Your task to perform on an android device: allow notifications from all sites in the chrome app Image 0: 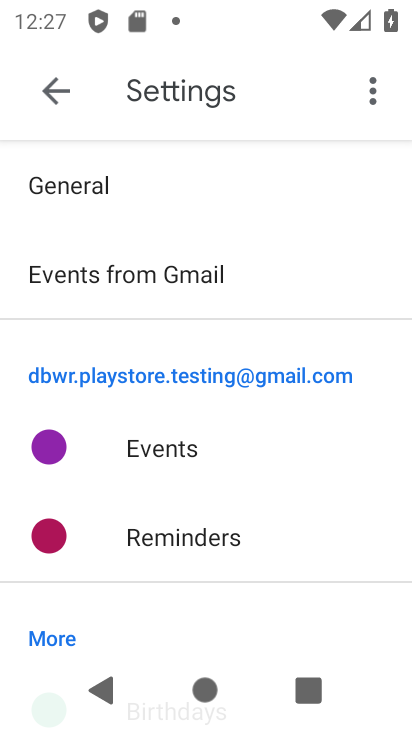
Step 0: press home button
Your task to perform on an android device: allow notifications from all sites in the chrome app Image 1: 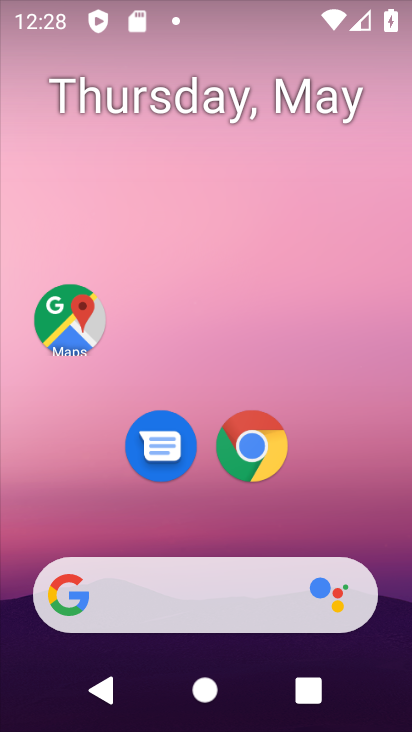
Step 1: drag from (347, 503) to (348, 77)
Your task to perform on an android device: allow notifications from all sites in the chrome app Image 2: 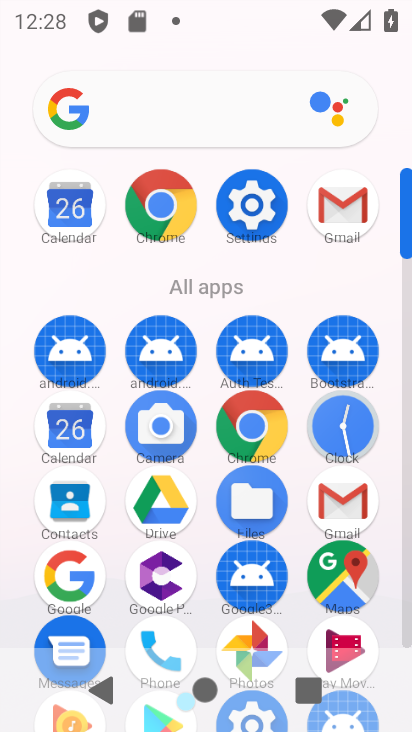
Step 2: click (260, 433)
Your task to perform on an android device: allow notifications from all sites in the chrome app Image 3: 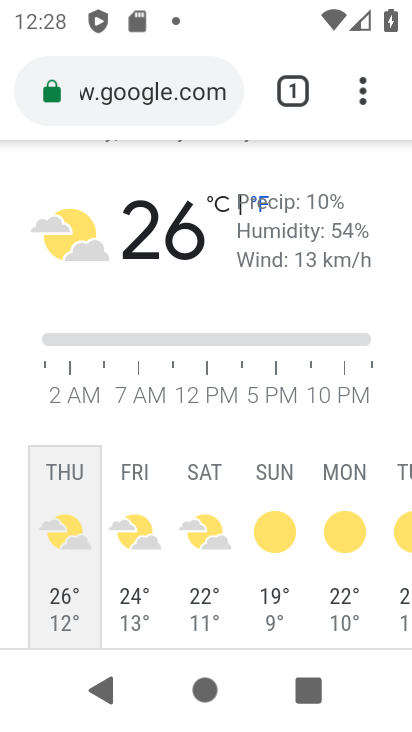
Step 3: drag from (356, 105) to (226, 479)
Your task to perform on an android device: allow notifications from all sites in the chrome app Image 4: 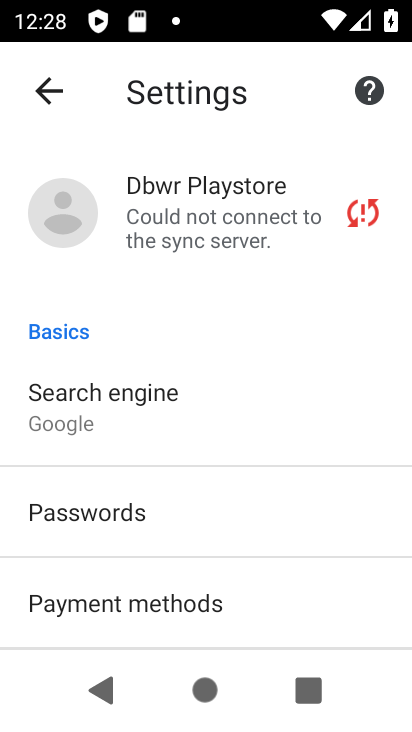
Step 4: drag from (235, 545) to (247, 274)
Your task to perform on an android device: allow notifications from all sites in the chrome app Image 5: 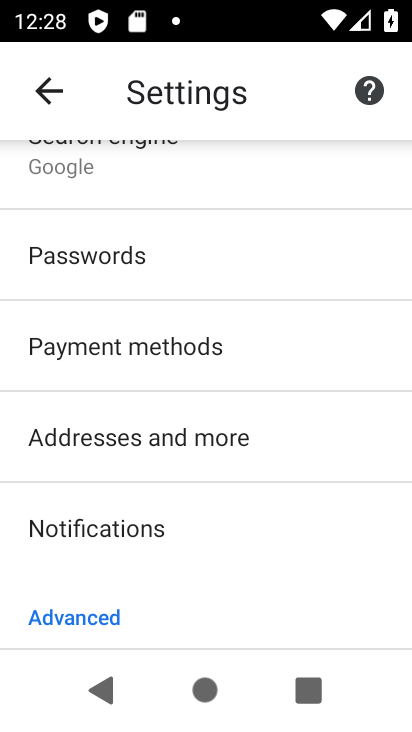
Step 5: drag from (239, 584) to (252, 298)
Your task to perform on an android device: allow notifications from all sites in the chrome app Image 6: 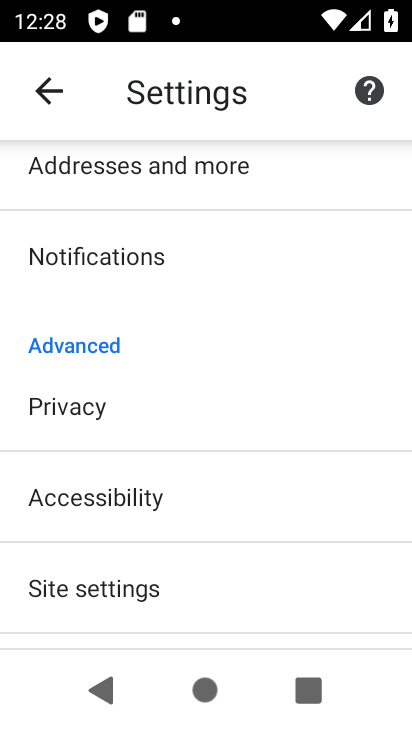
Step 6: click (184, 585)
Your task to perform on an android device: allow notifications from all sites in the chrome app Image 7: 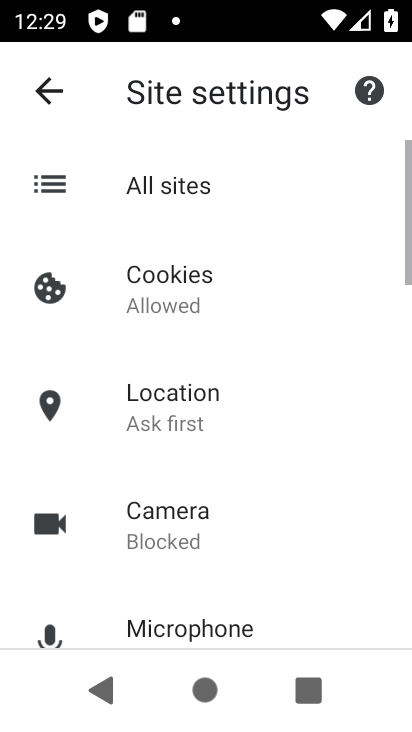
Step 7: click (161, 185)
Your task to perform on an android device: allow notifications from all sites in the chrome app Image 8: 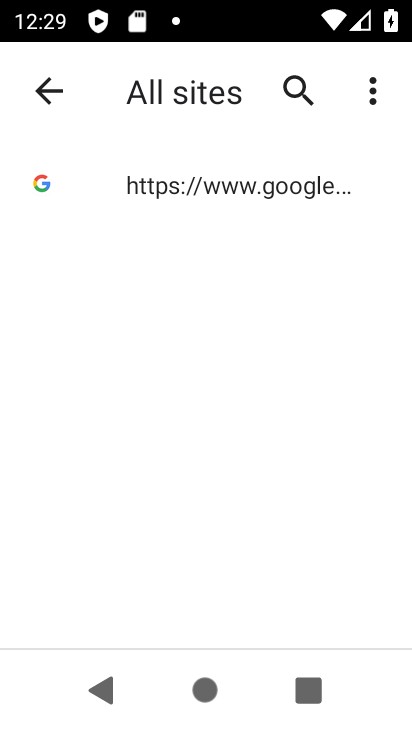
Step 8: click (164, 193)
Your task to perform on an android device: allow notifications from all sites in the chrome app Image 9: 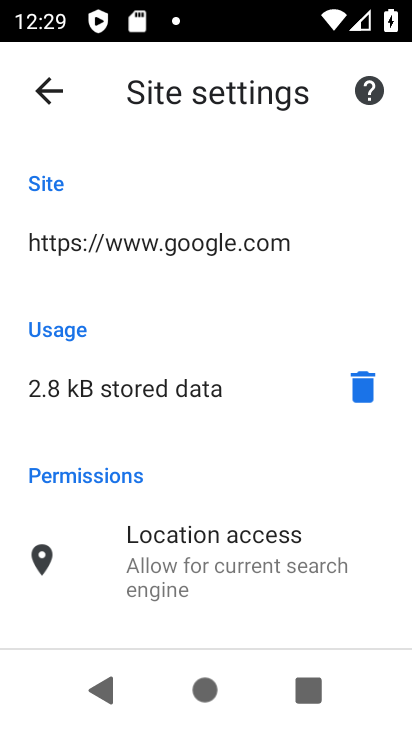
Step 9: task complete